Your task to perform on an android device: allow cookies in the chrome app Image 0: 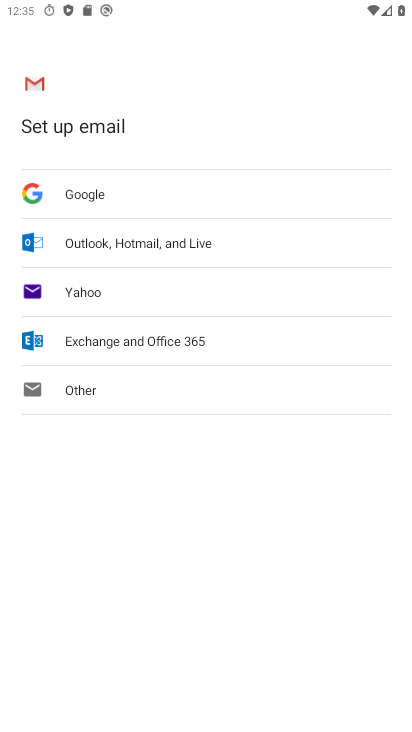
Step 0: press back button
Your task to perform on an android device: allow cookies in the chrome app Image 1: 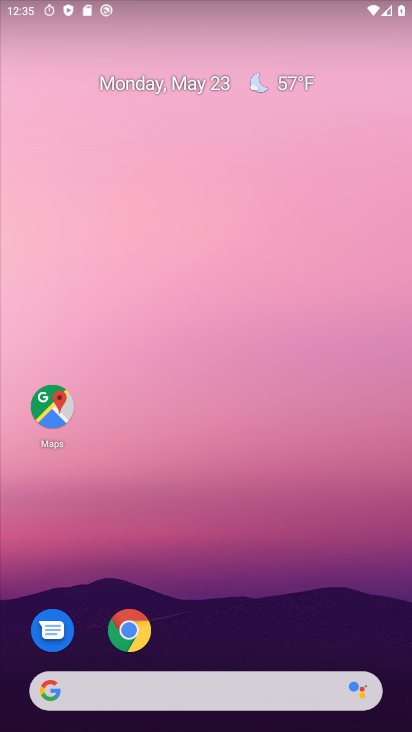
Step 1: drag from (248, 543) to (248, 1)
Your task to perform on an android device: allow cookies in the chrome app Image 2: 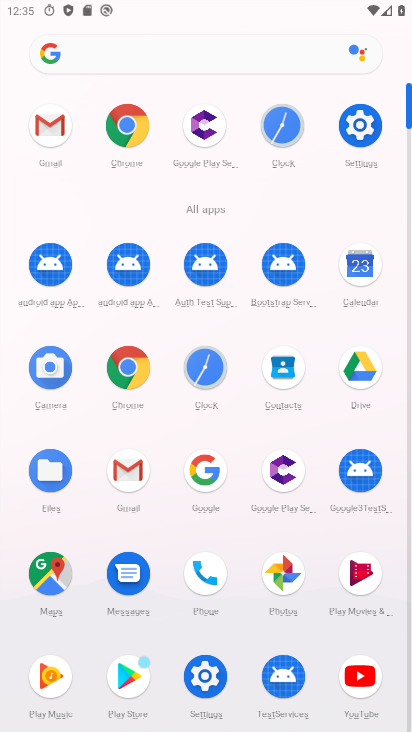
Step 2: click (127, 124)
Your task to perform on an android device: allow cookies in the chrome app Image 3: 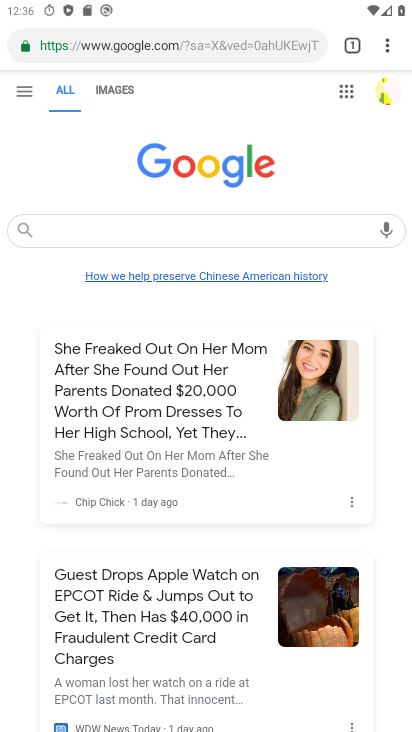
Step 3: drag from (381, 47) to (225, 513)
Your task to perform on an android device: allow cookies in the chrome app Image 4: 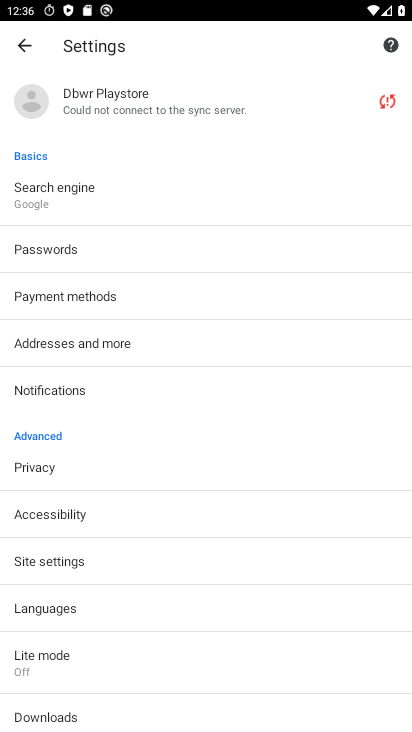
Step 4: drag from (163, 610) to (241, 184)
Your task to perform on an android device: allow cookies in the chrome app Image 5: 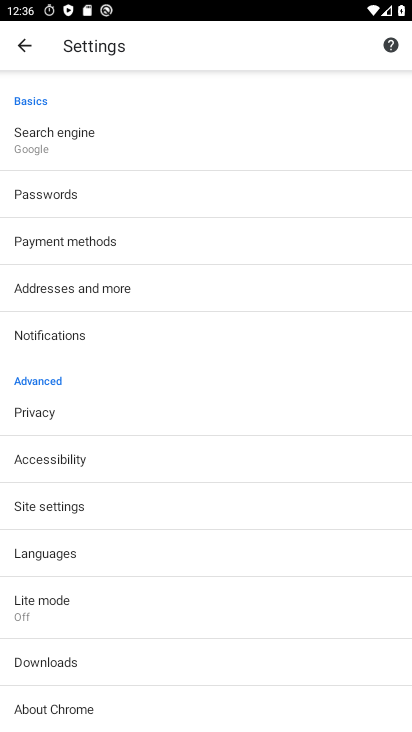
Step 5: drag from (177, 280) to (217, 656)
Your task to perform on an android device: allow cookies in the chrome app Image 6: 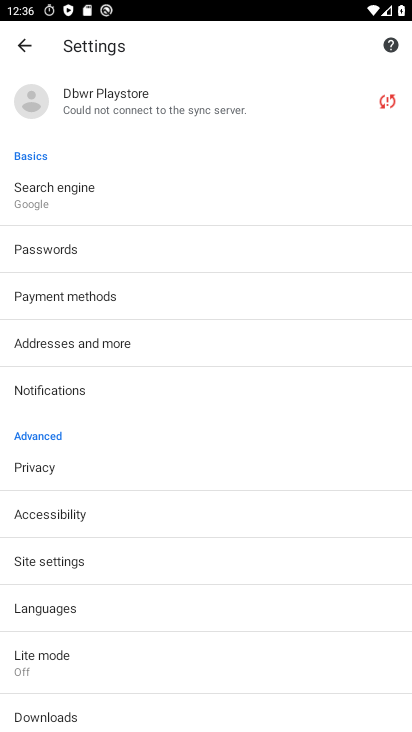
Step 6: drag from (217, 651) to (214, 216)
Your task to perform on an android device: allow cookies in the chrome app Image 7: 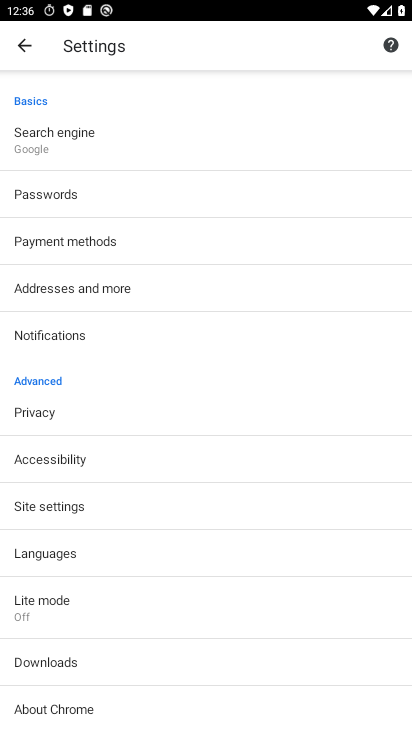
Step 7: drag from (210, 580) to (232, 231)
Your task to perform on an android device: allow cookies in the chrome app Image 8: 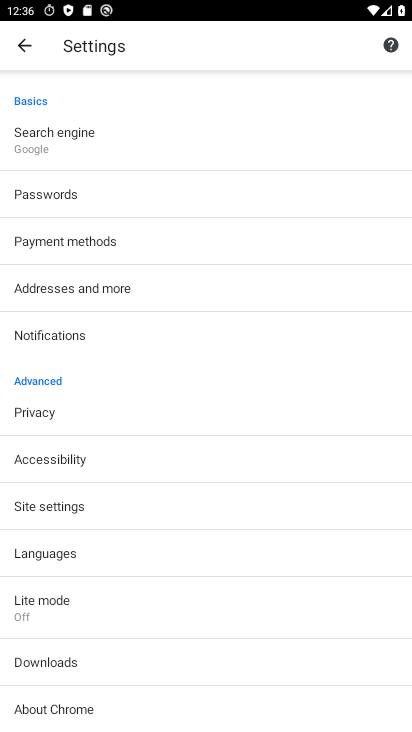
Step 8: drag from (178, 588) to (234, 313)
Your task to perform on an android device: allow cookies in the chrome app Image 9: 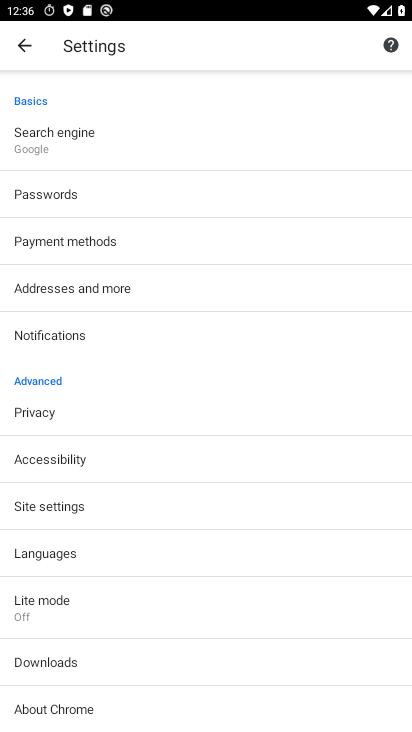
Step 9: click (106, 508)
Your task to perform on an android device: allow cookies in the chrome app Image 10: 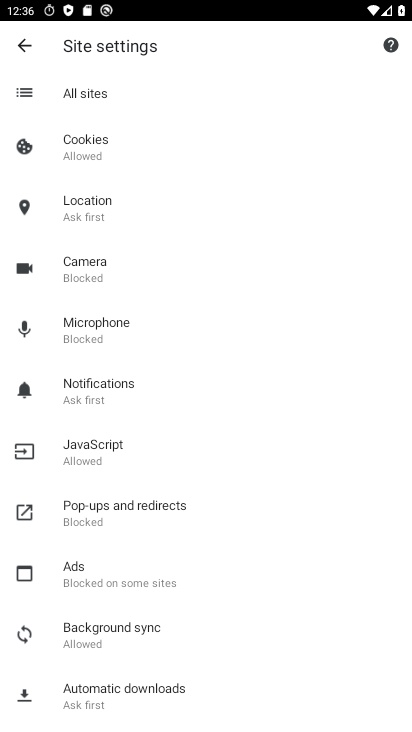
Step 10: task complete